Your task to perform on an android device: Turn on the flashlight Image 0: 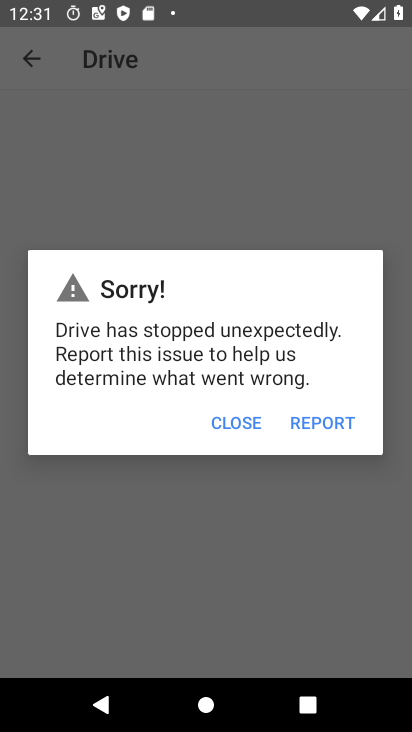
Step 0: press home button
Your task to perform on an android device: Turn on the flashlight Image 1: 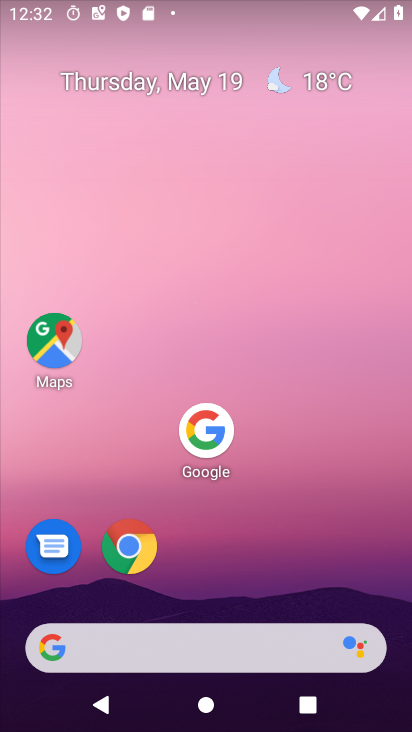
Step 1: drag from (248, 536) to (275, 58)
Your task to perform on an android device: Turn on the flashlight Image 2: 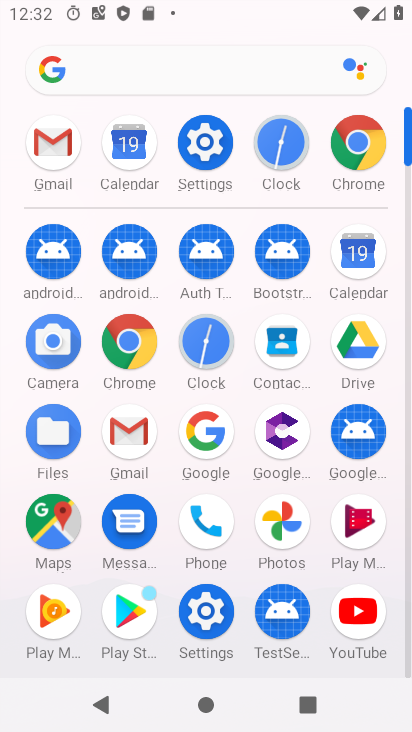
Step 2: click (205, 137)
Your task to perform on an android device: Turn on the flashlight Image 3: 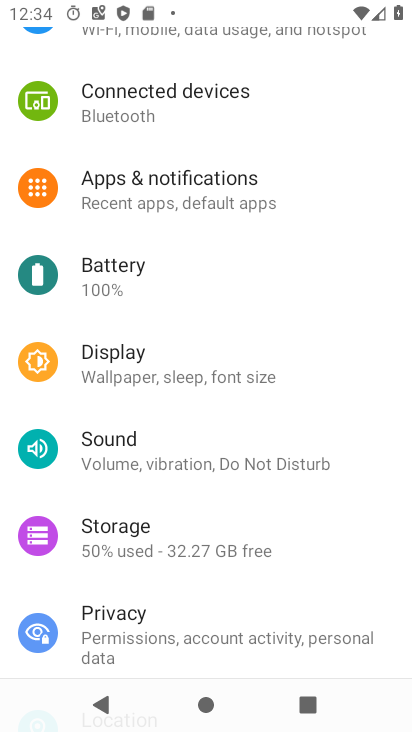
Step 3: task complete